Your task to perform on an android device: Open Maps and search for coffee Image 0: 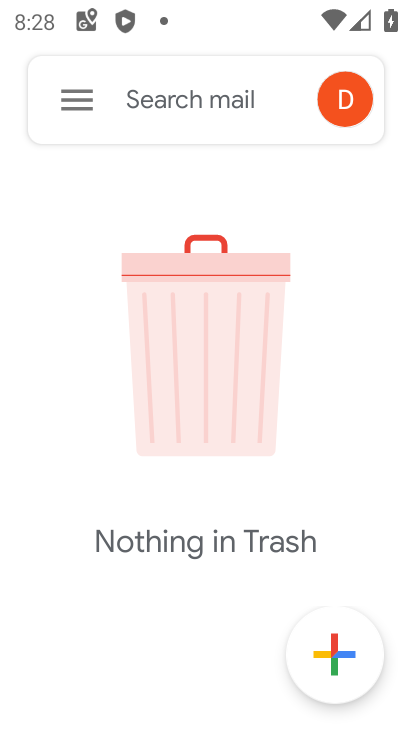
Step 0: press home button
Your task to perform on an android device: Open Maps and search for coffee Image 1: 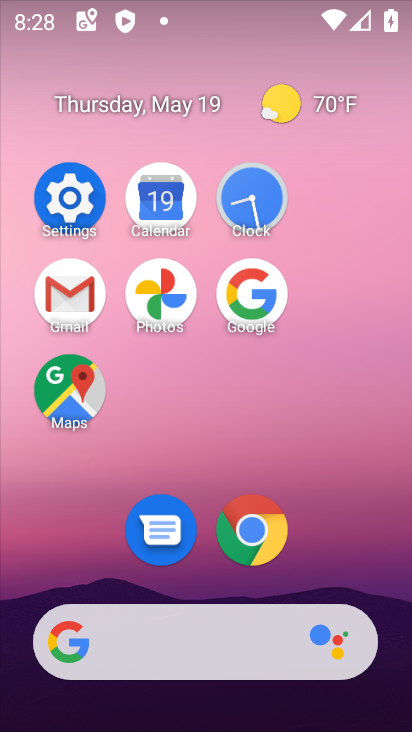
Step 1: click (74, 416)
Your task to perform on an android device: Open Maps and search for coffee Image 2: 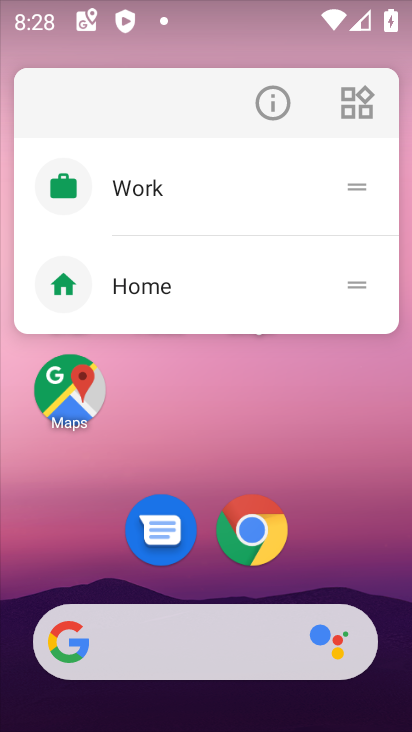
Step 2: click (86, 403)
Your task to perform on an android device: Open Maps and search for coffee Image 3: 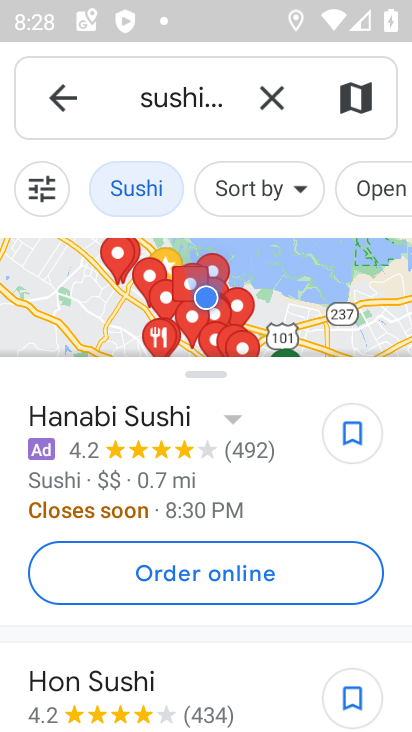
Step 3: click (274, 92)
Your task to perform on an android device: Open Maps and search for coffee Image 4: 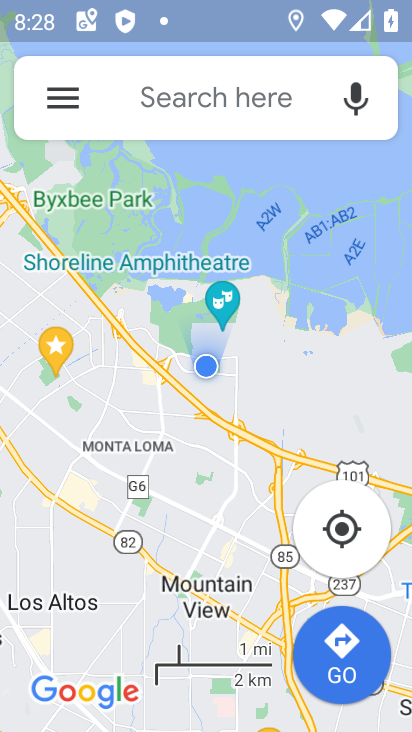
Step 4: click (173, 107)
Your task to perform on an android device: Open Maps and search for coffee Image 5: 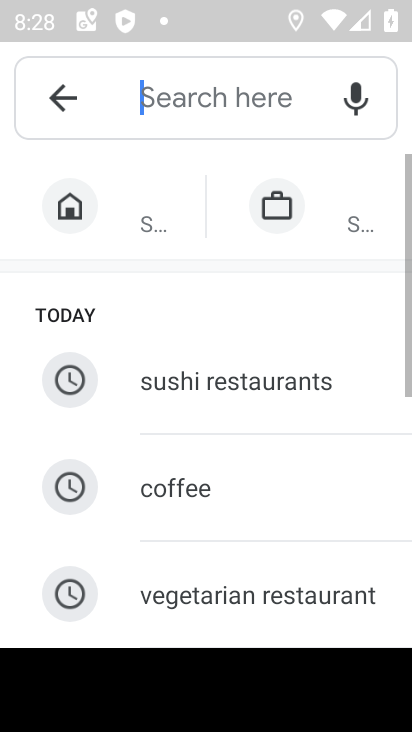
Step 5: click (188, 499)
Your task to perform on an android device: Open Maps and search for coffee Image 6: 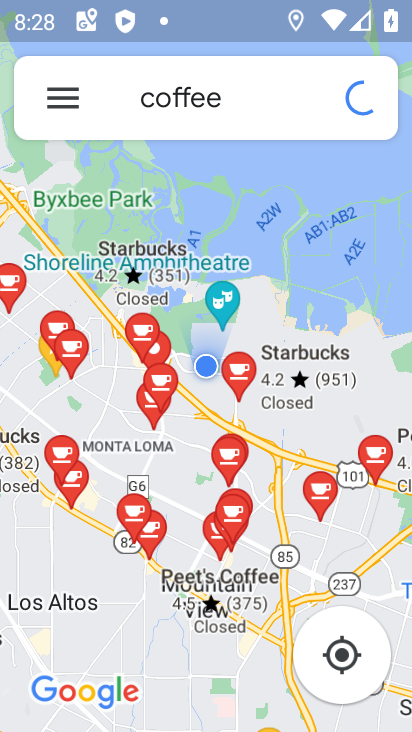
Step 6: task complete